Your task to perform on an android device: Open Wikipedia Image 0: 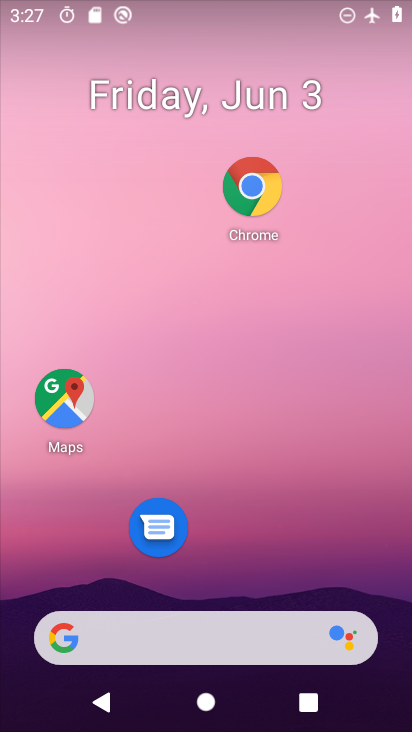
Step 0: click (265, 189)
Your task to perform on an android device: Open Wikipedia Image 1: 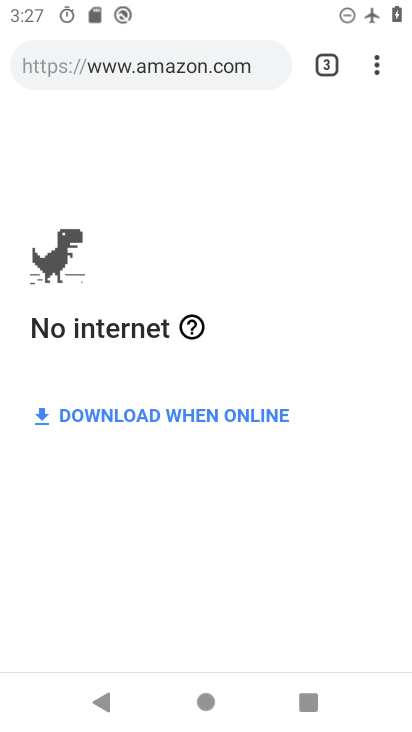
Step 1: click (374, 48)
Your task to perform on an android device: Open Wikipedia Image 2: 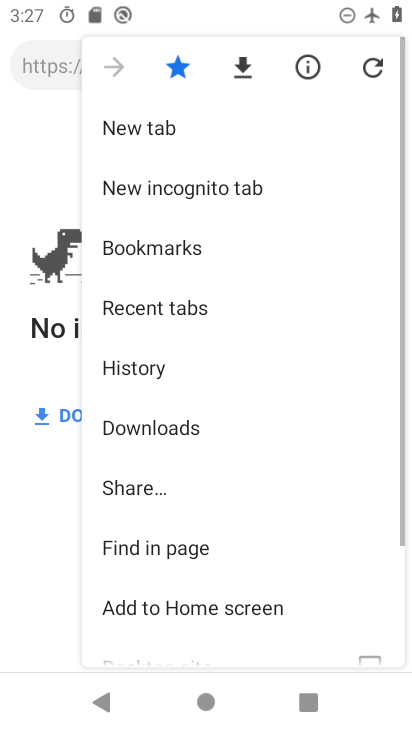
Step 2: click (155, 115)
Your task to perform on an android device: Open Wikipedia Image 3: 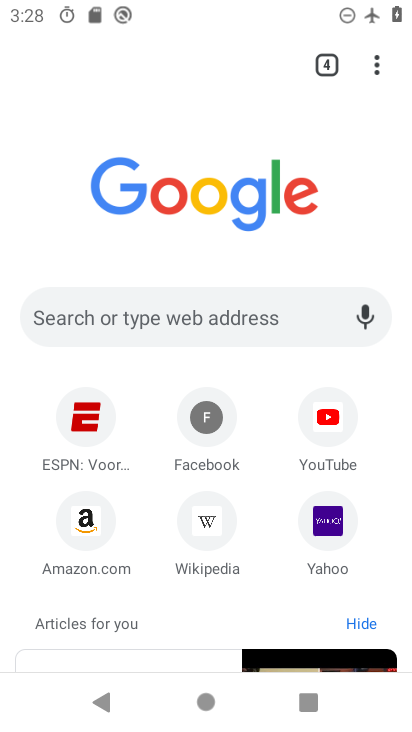
Step 3: click (201, 525)
Your task to perform on an android device: Open Wikipedia Image 4: 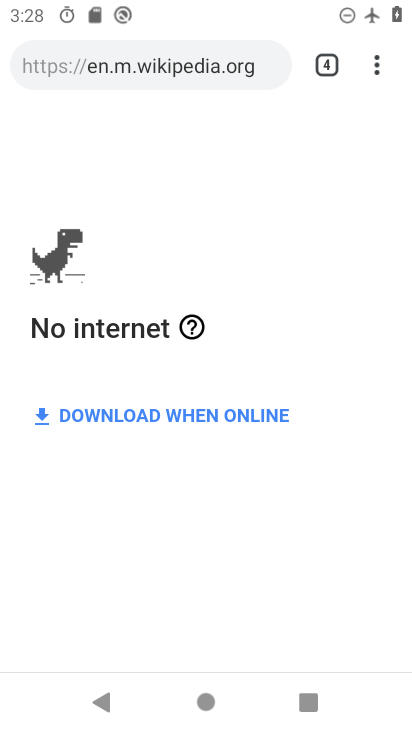
Step 4: task complete